Your task to perform on an android device: Clear the shopping cart on costco.com. Image 0: 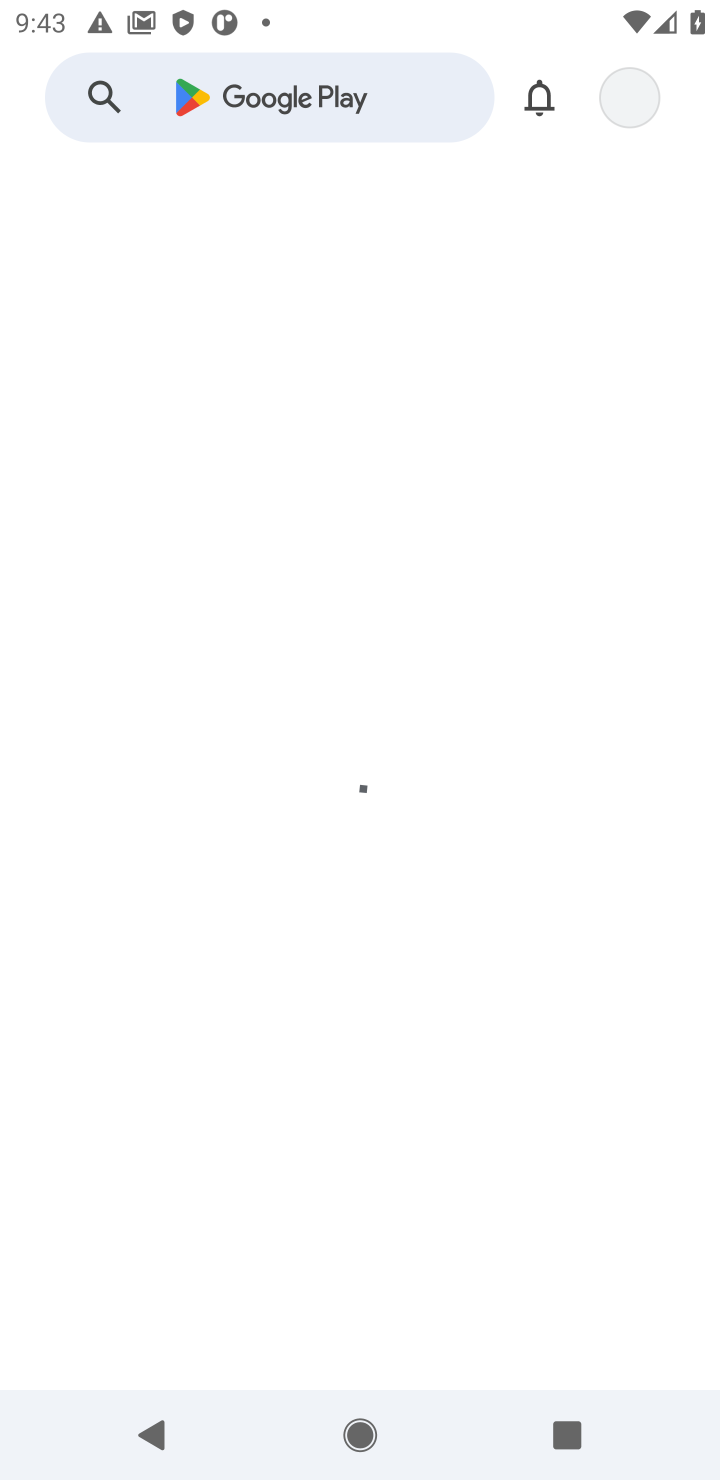
Step 0: press home button
Your task to perform on an android device: Clear the shopping cart on costco.com. Image 1: 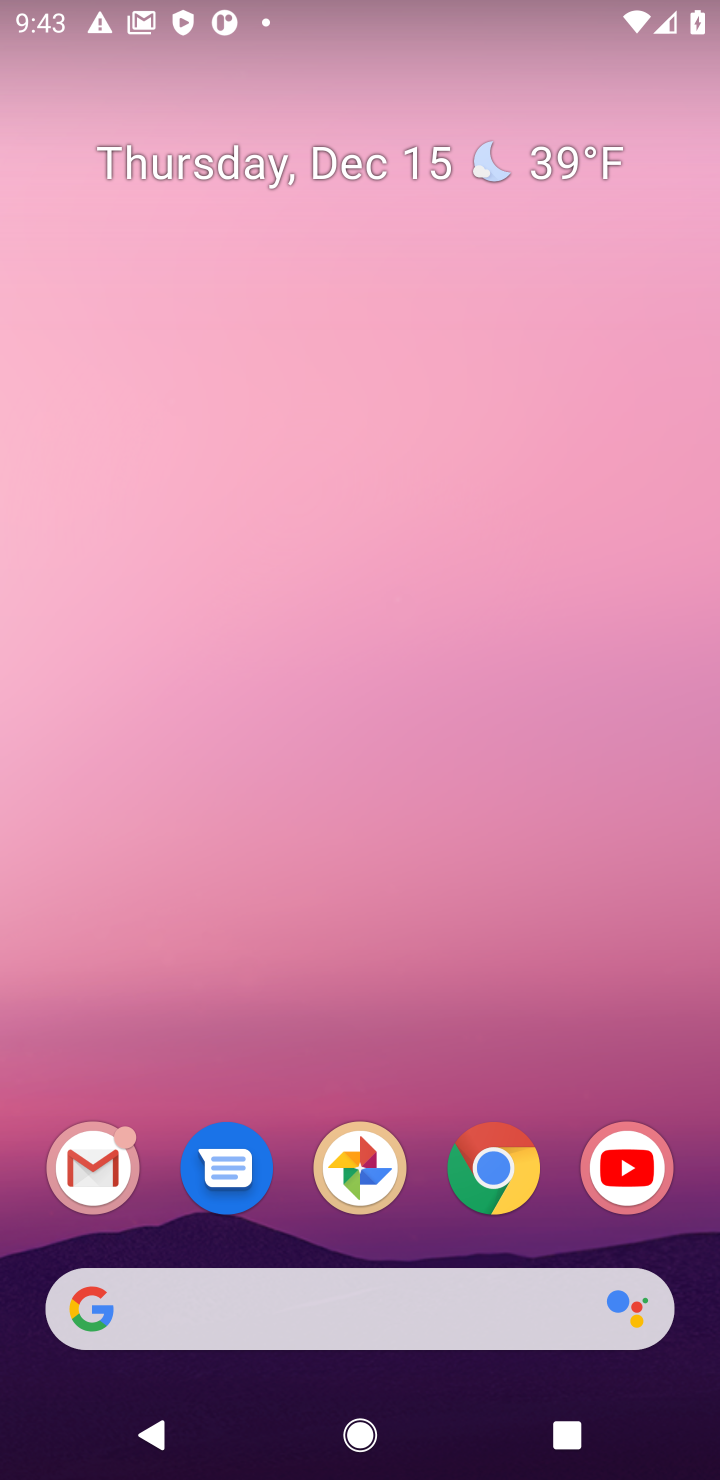
Step 1: click (492, 1167)
Your task to perform on an android device: Clear the shopping cart on costco.com. Image 2: 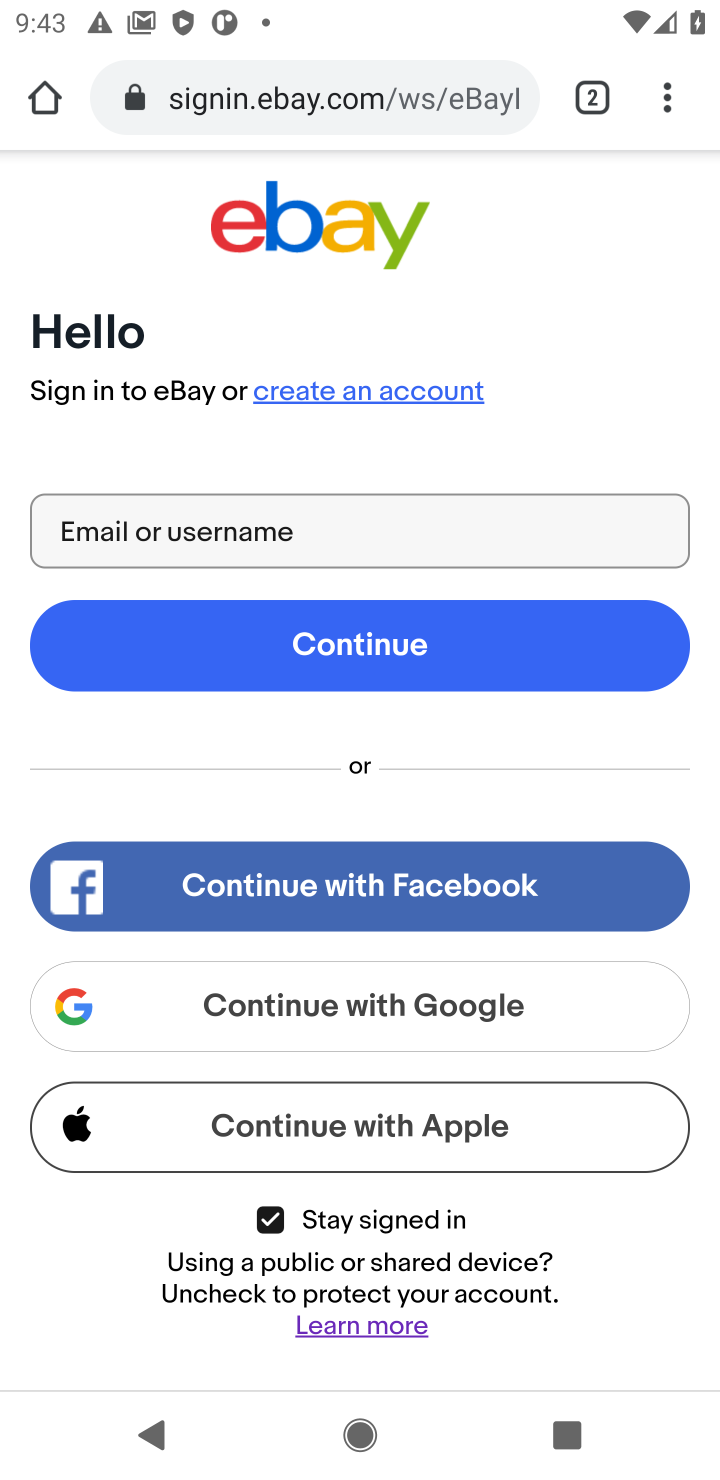
Step 2: click (339, 91)
Your task to perform on an android device: Clear the shopping cart on costco.com. Image 3: 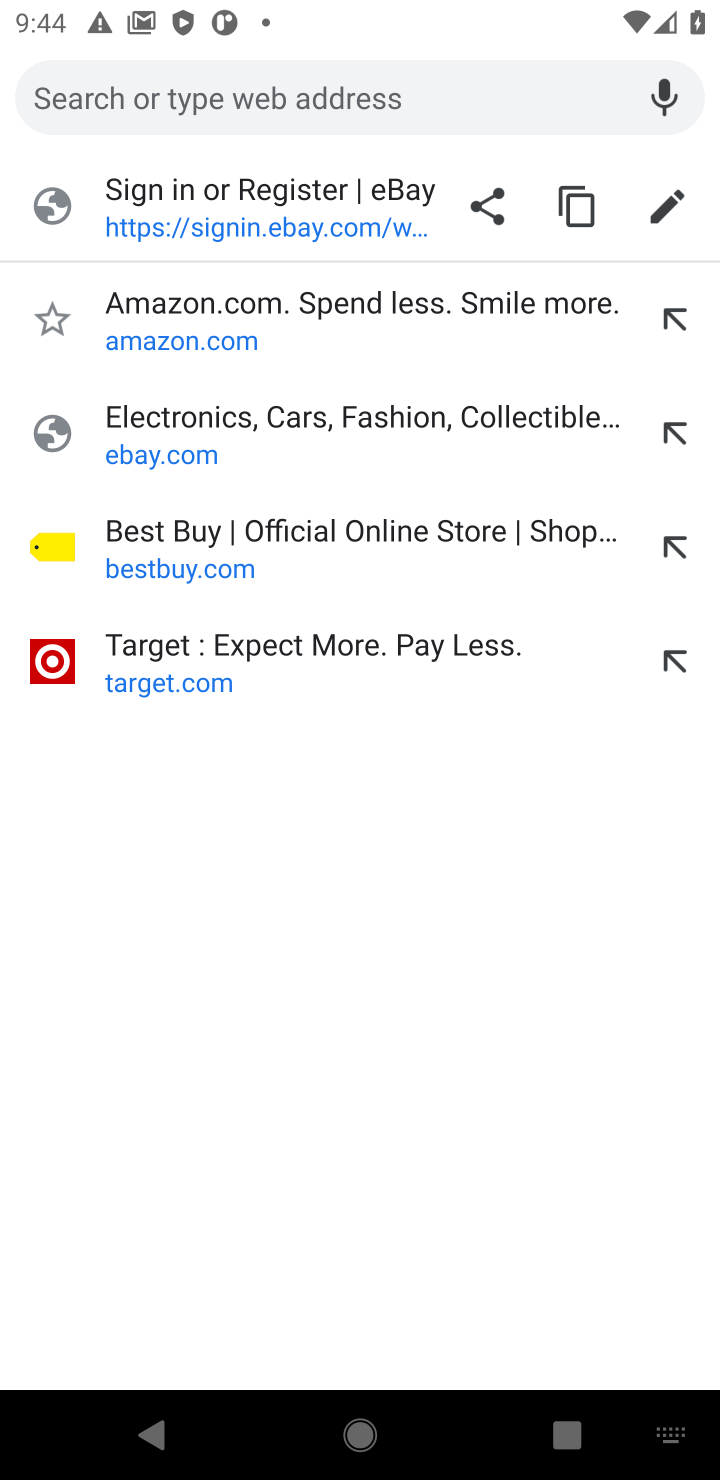
Step 3: type "COSTCO"
Your task to perform on an android device: Clear the shopping cart on costco.com. Image 4: 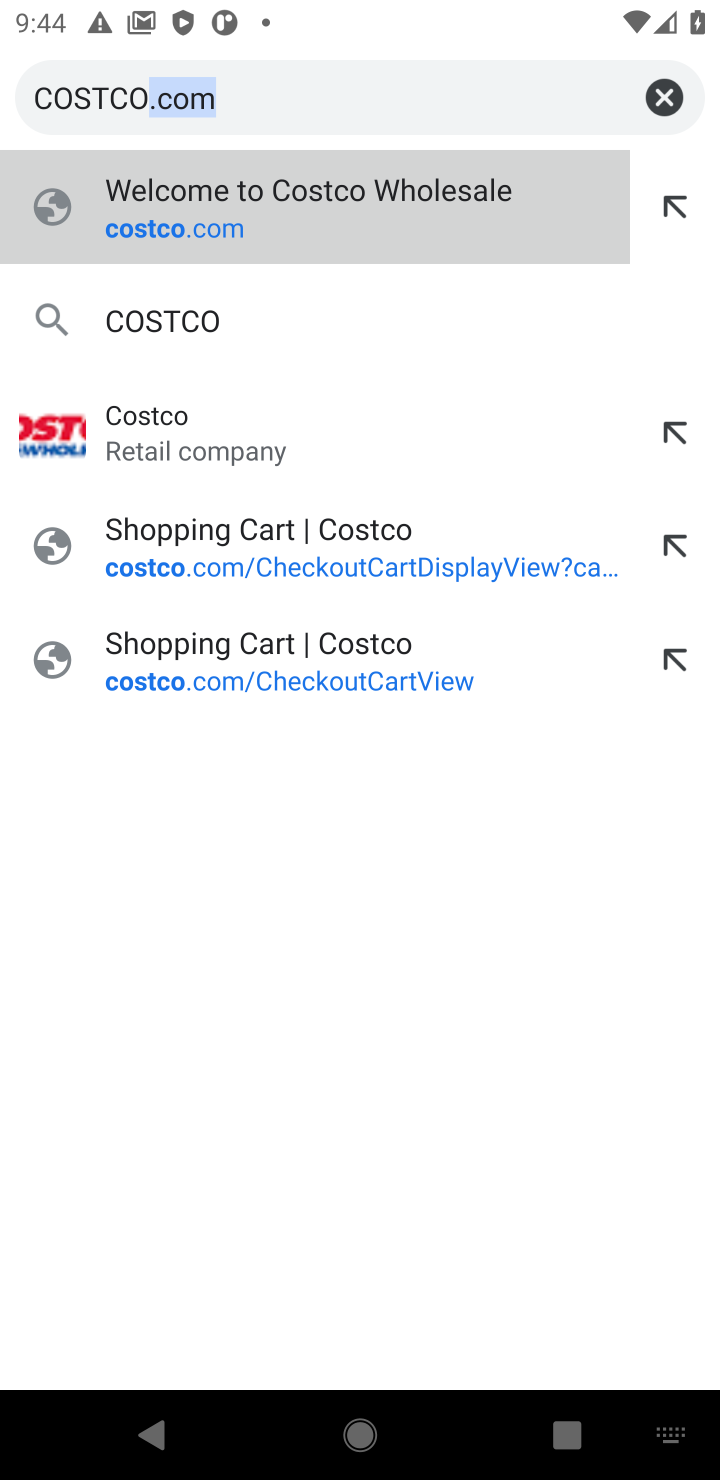
Step 4: click (242, 231)
Your task to perform on an android device: Clear the shopping cart on costco.com. Image 5: 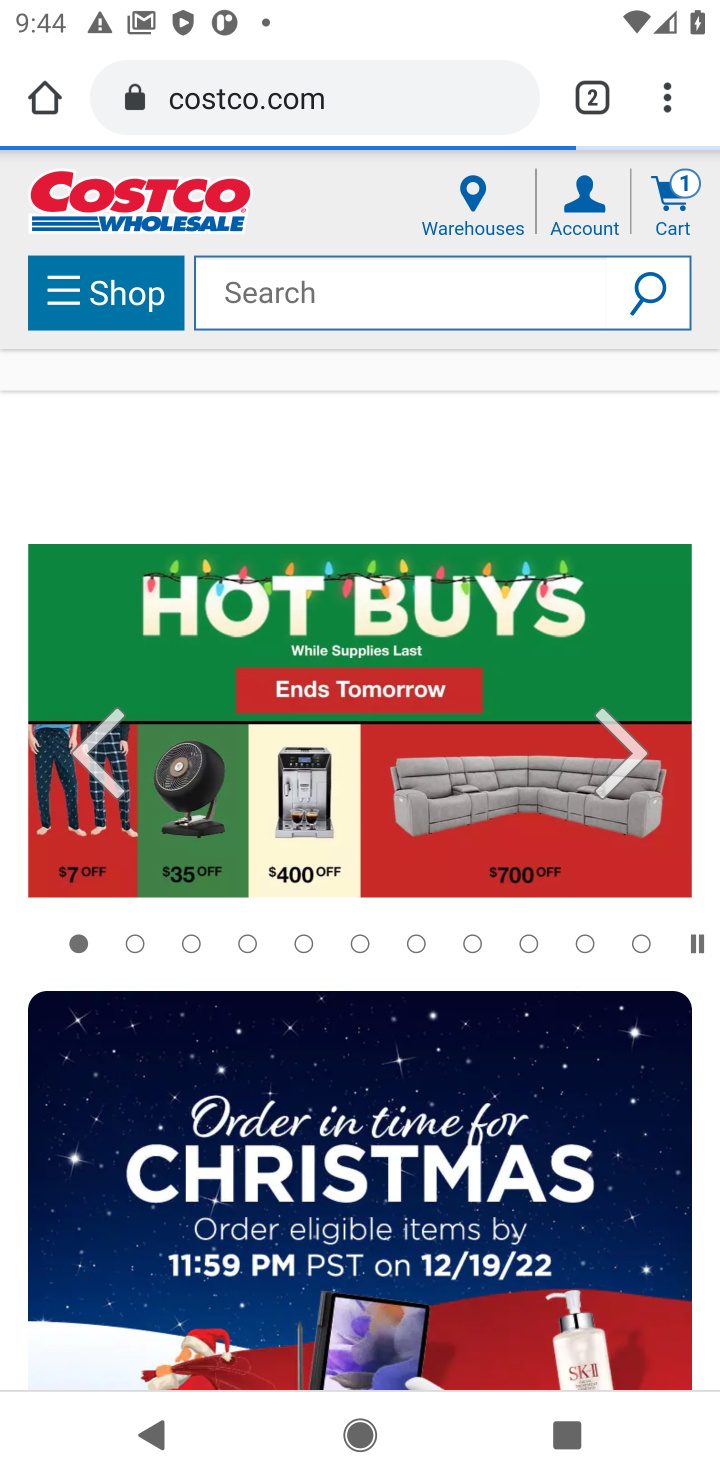
Step 5: click (664, 200)
Your task to perform on an android device: Clear the shopping cart on costco.com. Image 6: 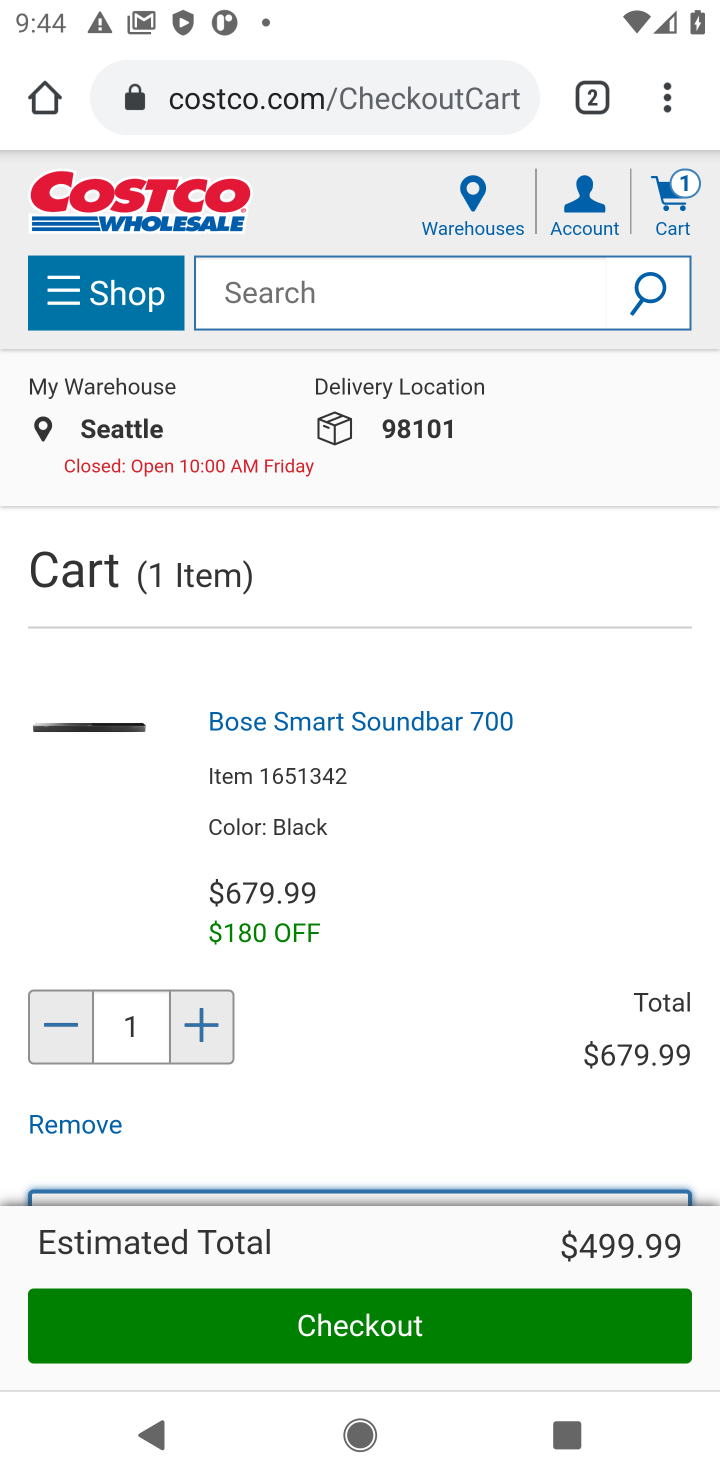
Step 6: click (70, 1124)
Your task to perform on an android device: Clear the shopping cart on costco.com. Image 7: 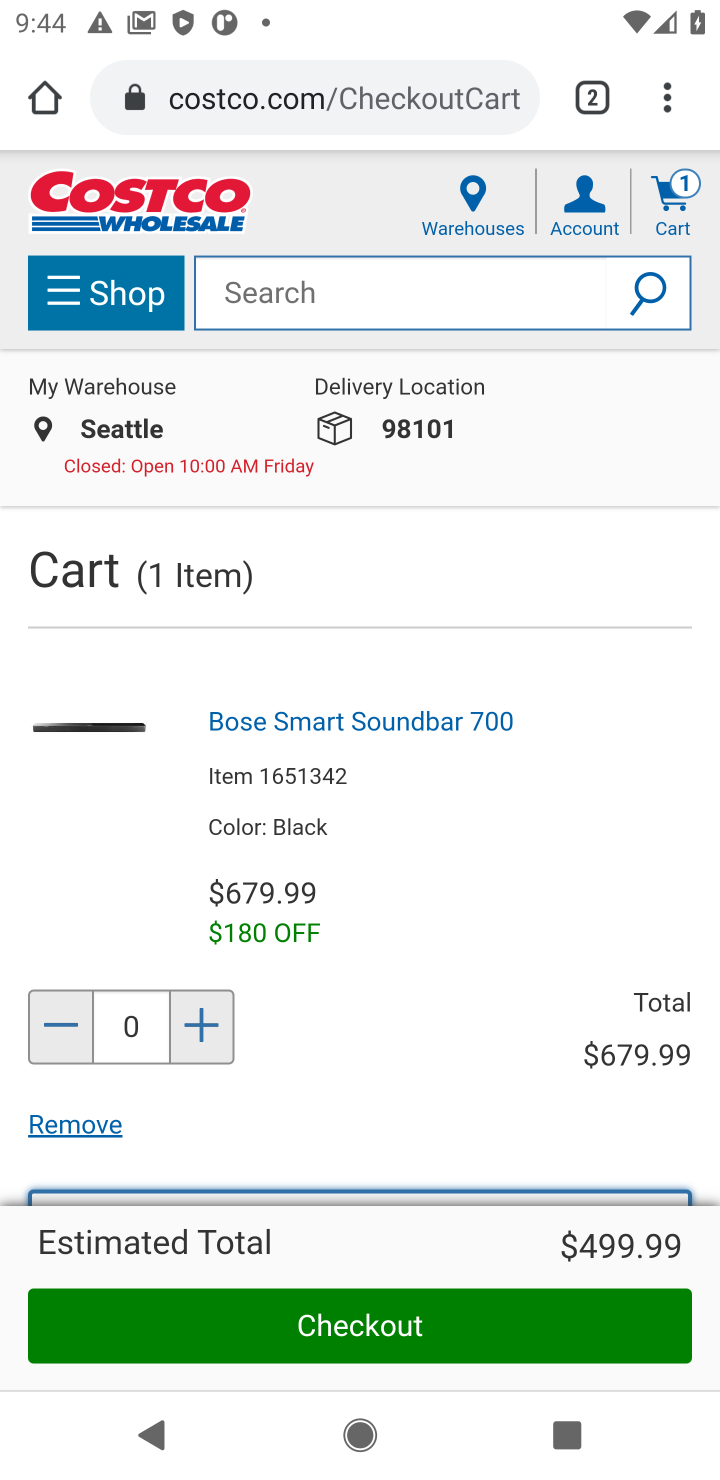
Step 7: click (70, 1124)
Your task to perform on an android device: Clear the shopping cart on costco.com. Image 8: 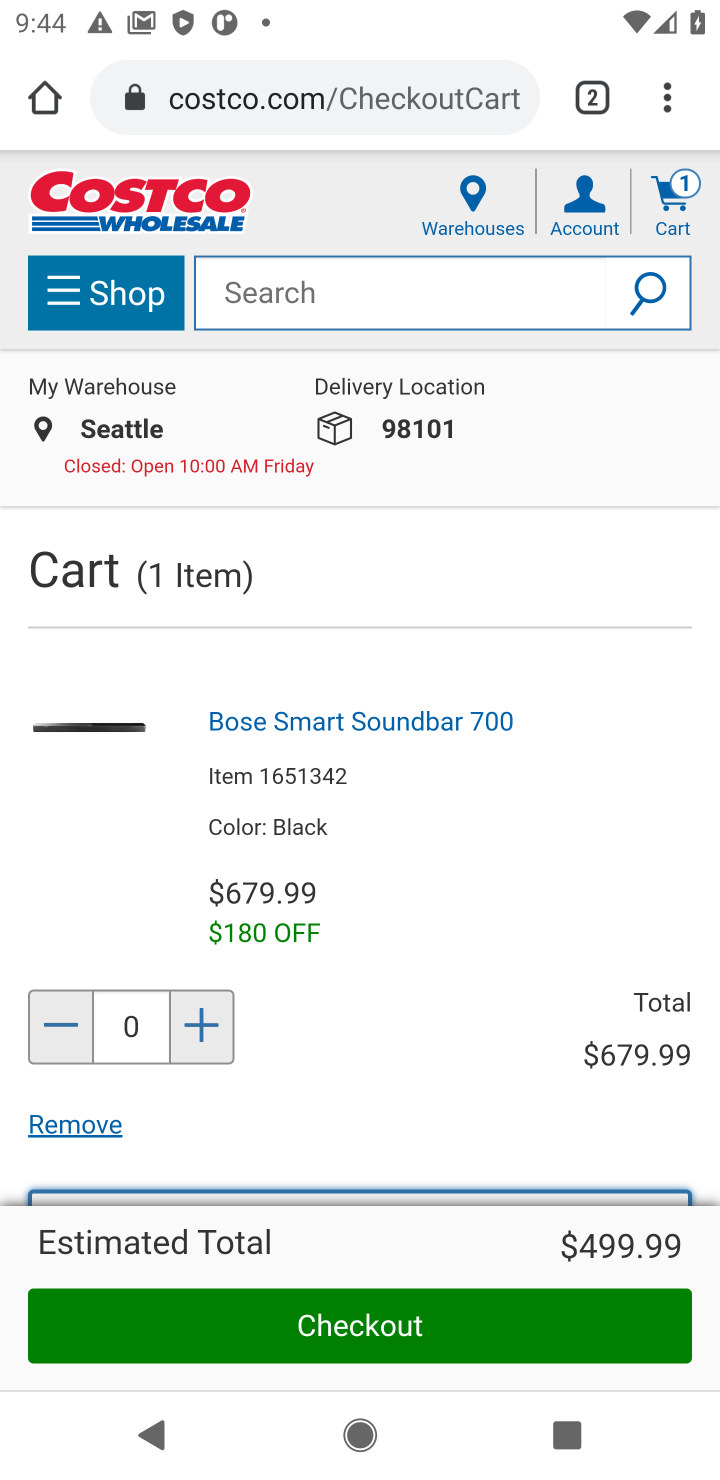
Step 8: task complete